Your task to perform on an android device: What's the weather? Image 0: 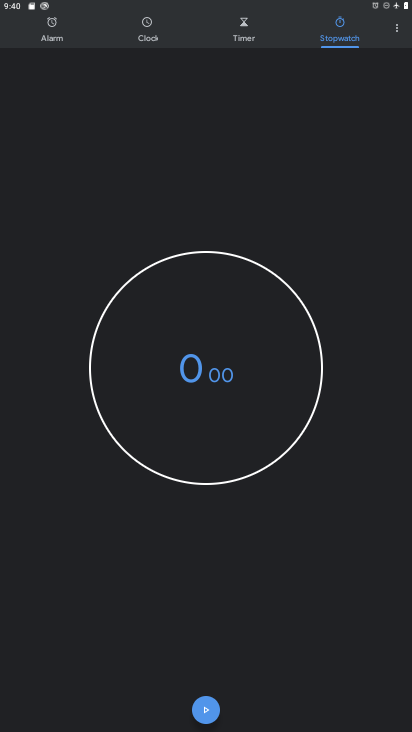
Step 0: press home button
Your task to perform on an android device: What's the weather? Image 1: 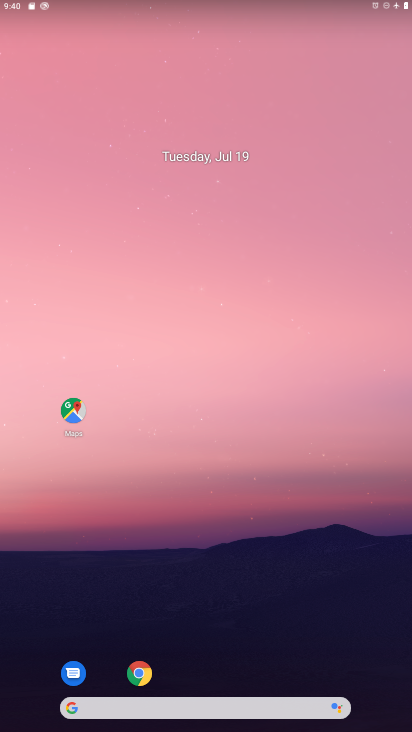
Step 1: click (157, 707)
Your task to perform on an android device: What's the weather? Image 2: 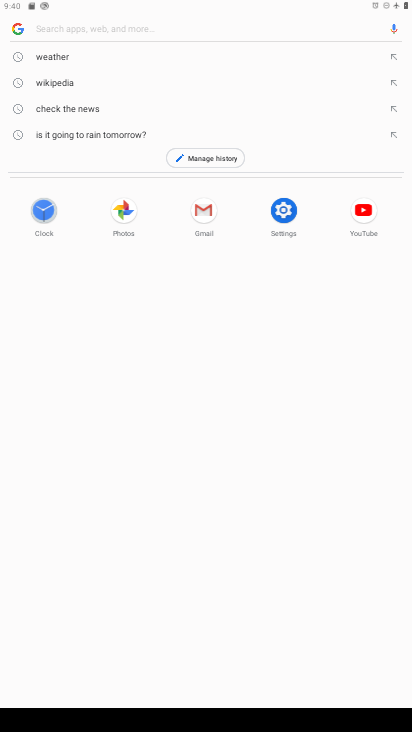
Step 2: click (50, 49)
Your task to perform on an android device: What's the weather? Image 3: 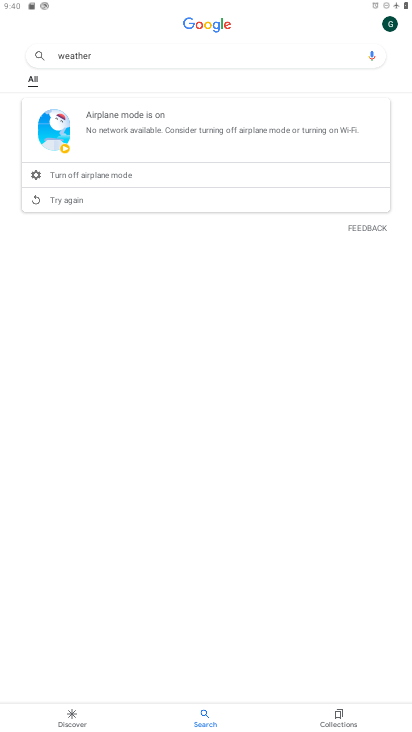
Step 3: click (30, 196)
Your task to perform on an android device: What's the weather? Image 4: 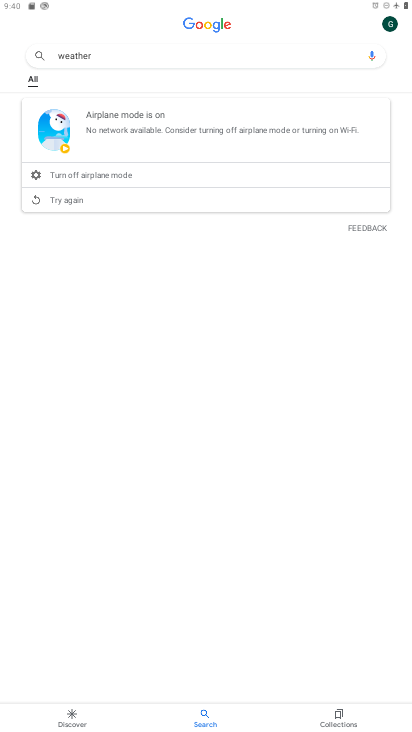
Step 4: click (33, 198)
Your task to perform on an android device: What's the weather? Image 5: 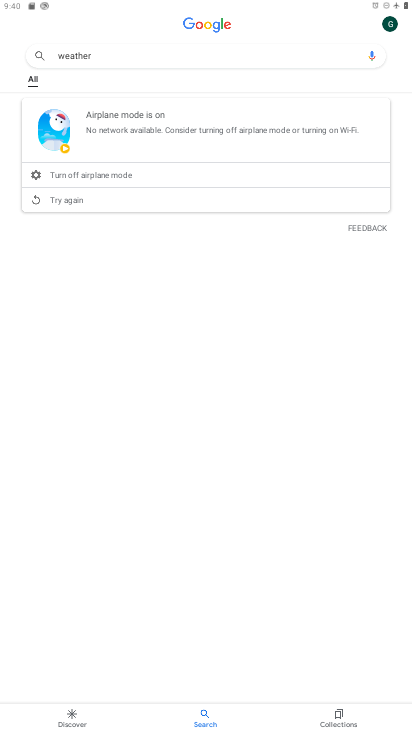
Step 5: task complete